Your task to perform on an android device: Clear all items from cart on costco. Search for "razer blade" on costco, select the first entry, add it to the cart, then select checkout. Image 0: 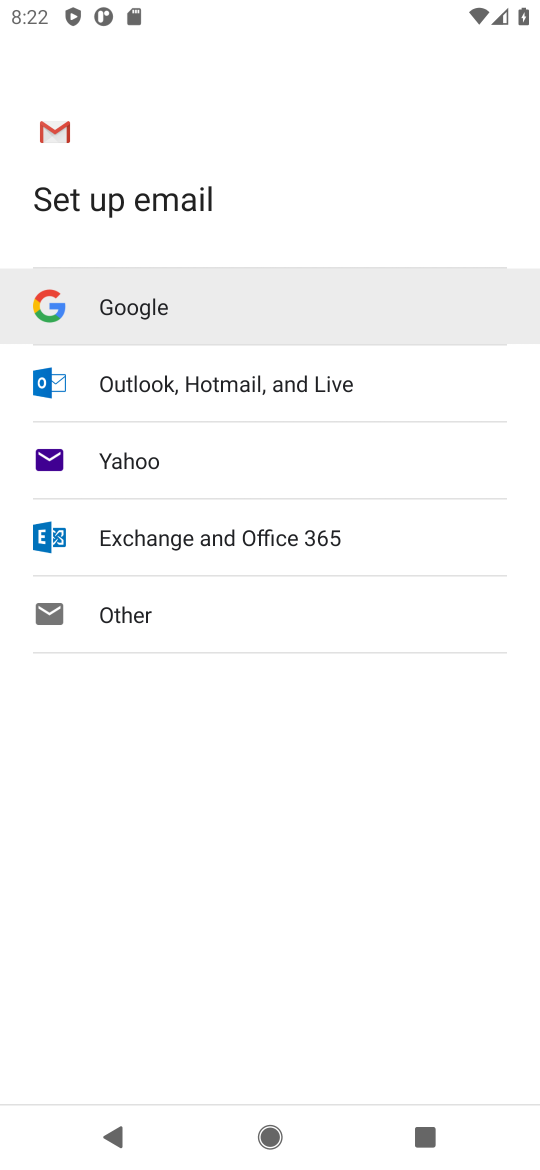
Step 0: press home button
Your task to perform on an android device: Clear all items from cart on costco. Search for "razer blade" on costco, select the first entry, add it to the cart, then select checkout. Image 1: 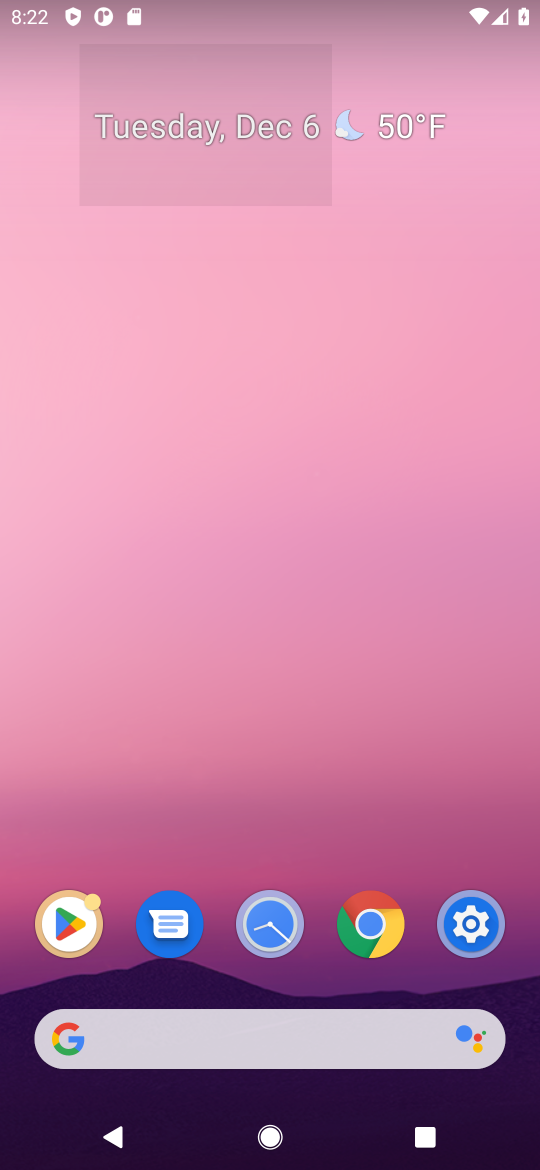
Step 1: click (275, 1027)
Your task to perform on an android device: Clear all items from cart on costco. Search for "razer blade" on costco, select the first entry, add it to the cart, then select checkout. Image 2: 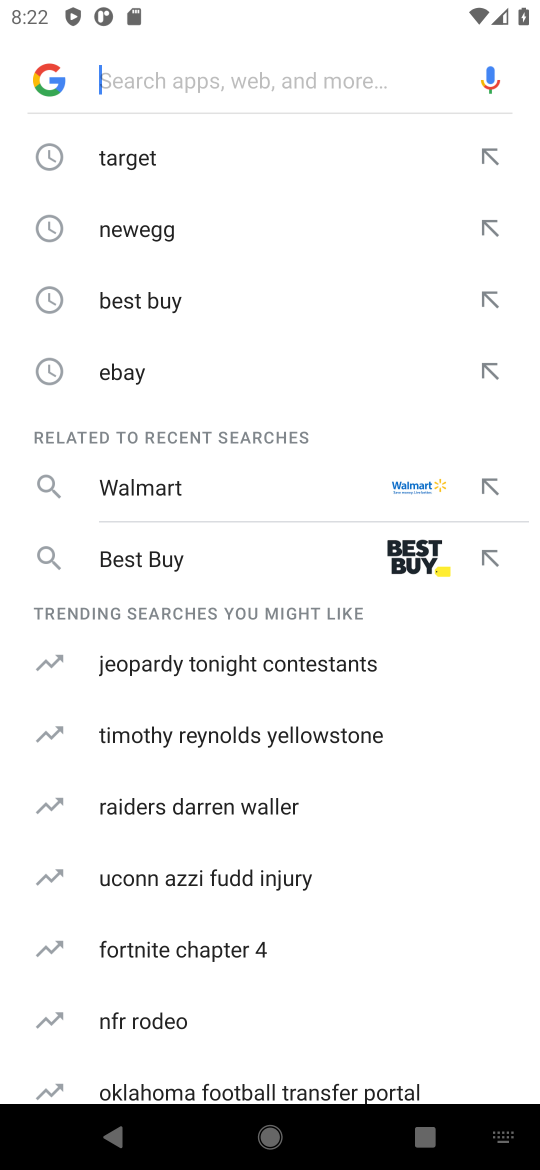
Step 2: type "costco"
Your task to perform on an android device: Clear all items from cart on costco. Search for "razer blade" on costco, select the first entry, add it to the cart, then select checkout. Image 3: 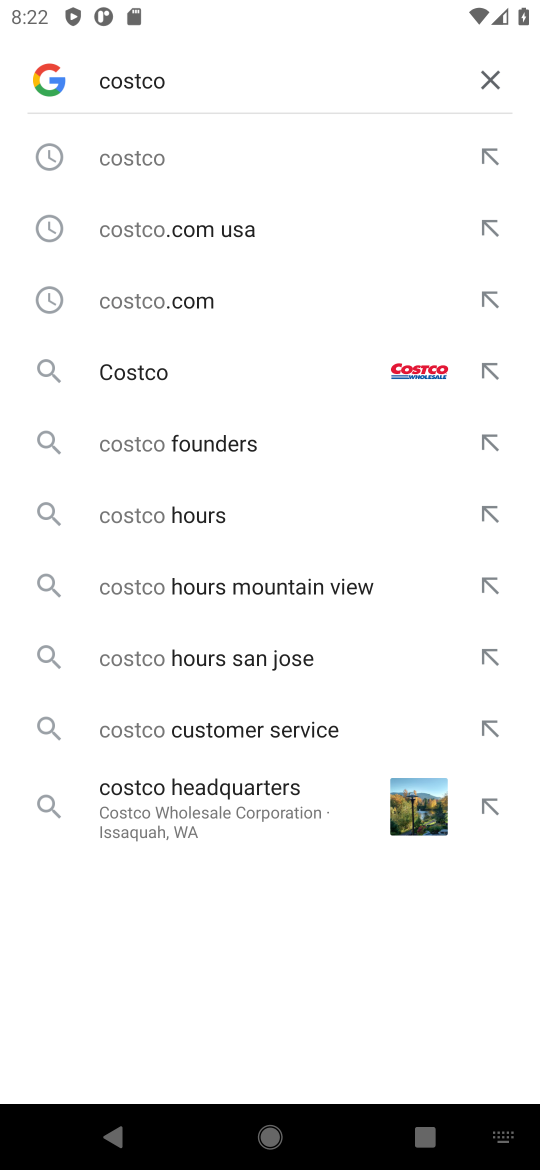
Step 3: click (269, 370)
Your task to perform on an android device: Clear all items from cart on costco. Search for "razer blade" on costco, select the first entry, add it to the cart, then select checkout. Image 4: 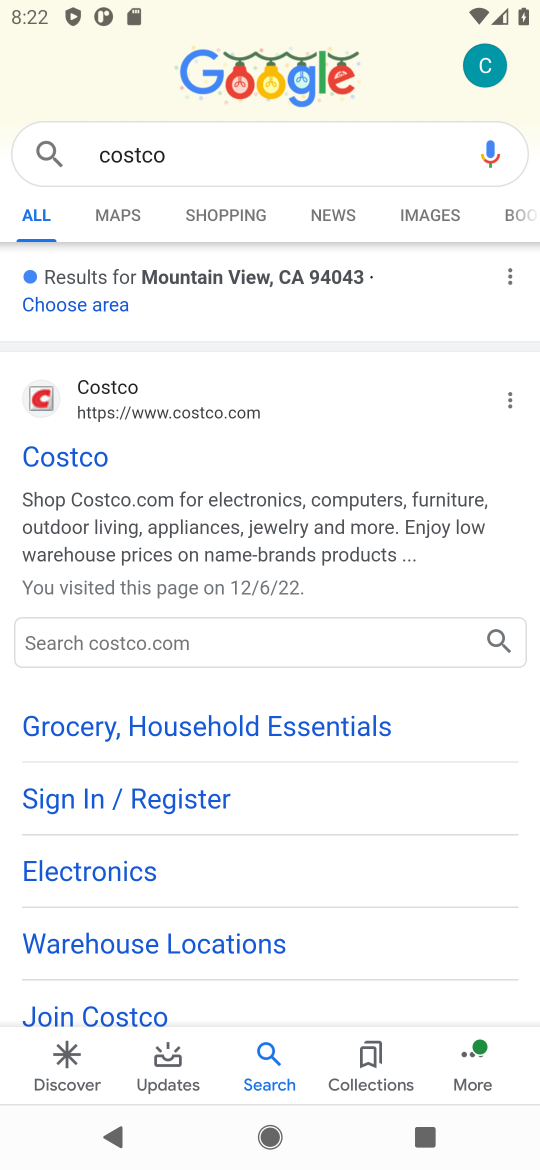
Step 4: click (72, 459)
Your task to perform on an android device: Clear all items from cart on costco. Search for "razer blade" on costco, select the first entry, add it to the cart, then select checkout. Image 5: 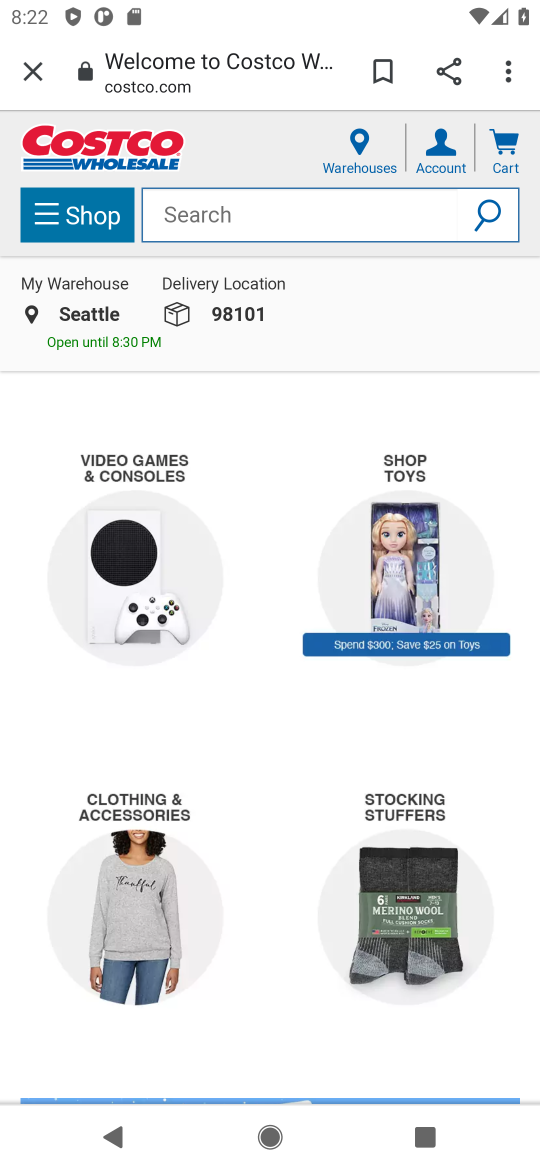
Step 5: click (288, 232)
Your task to perform on an android device: Clear all items from cart on costco. Search for "razer blade" on costco, select the first entry, add it to the cart, then select checkout. Image 6: 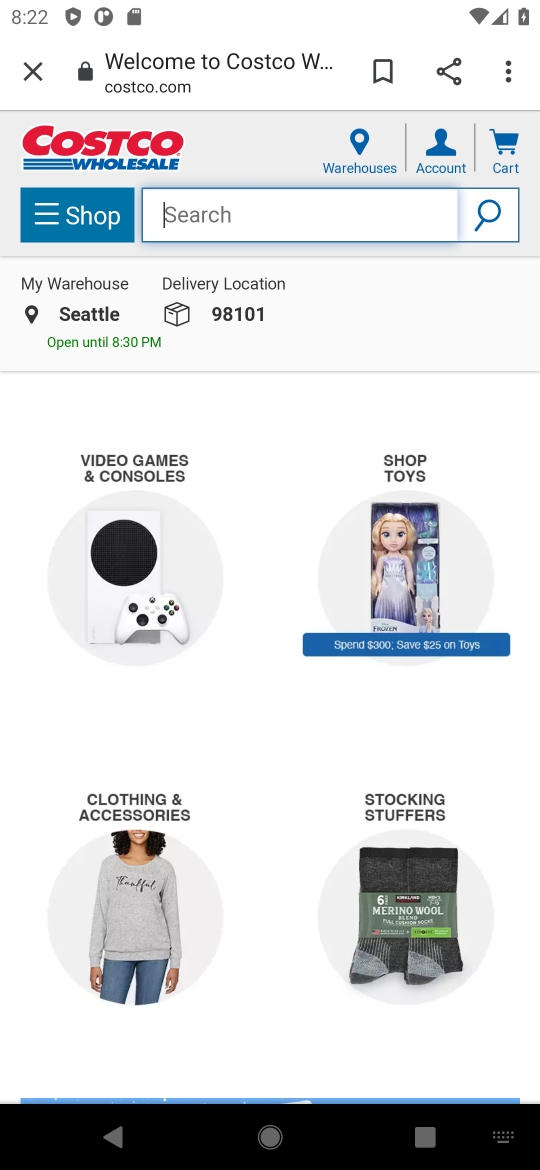
Step 6: type "razer blade"
Your task to perform on an android device: Clear all items from cart on costco. Search for "razer blade" on costco, select the first entry, add it to the cart, then select checkout. Image 7: 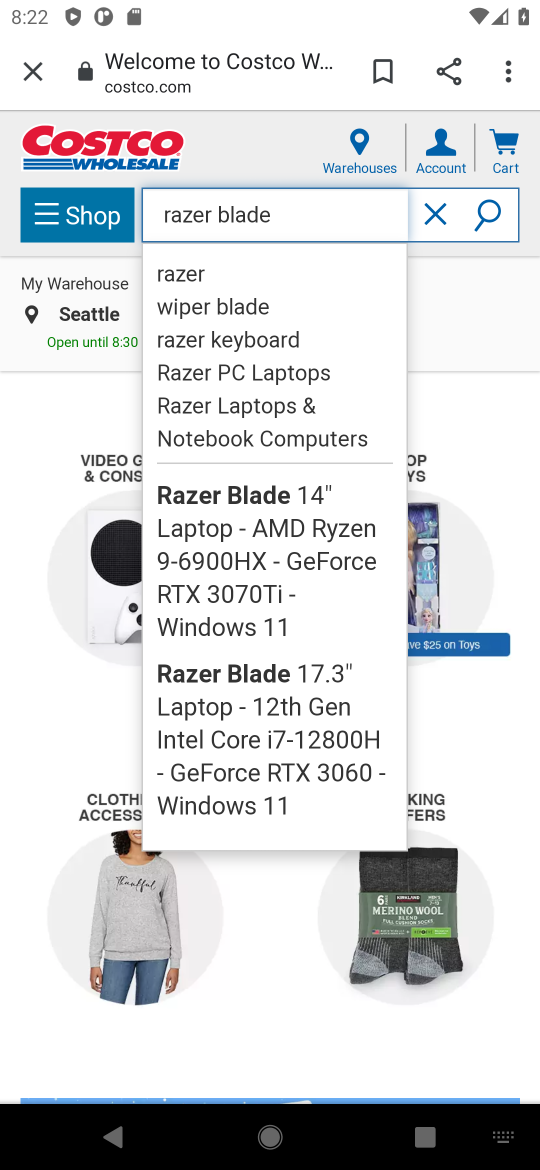
Step 7: click (478, 221)
Your task to perform on an android device: Clear all items from cart on costco. Search for "razer blade" on costco, select the first entry, add it to the cart, then select checkout. Image 8: 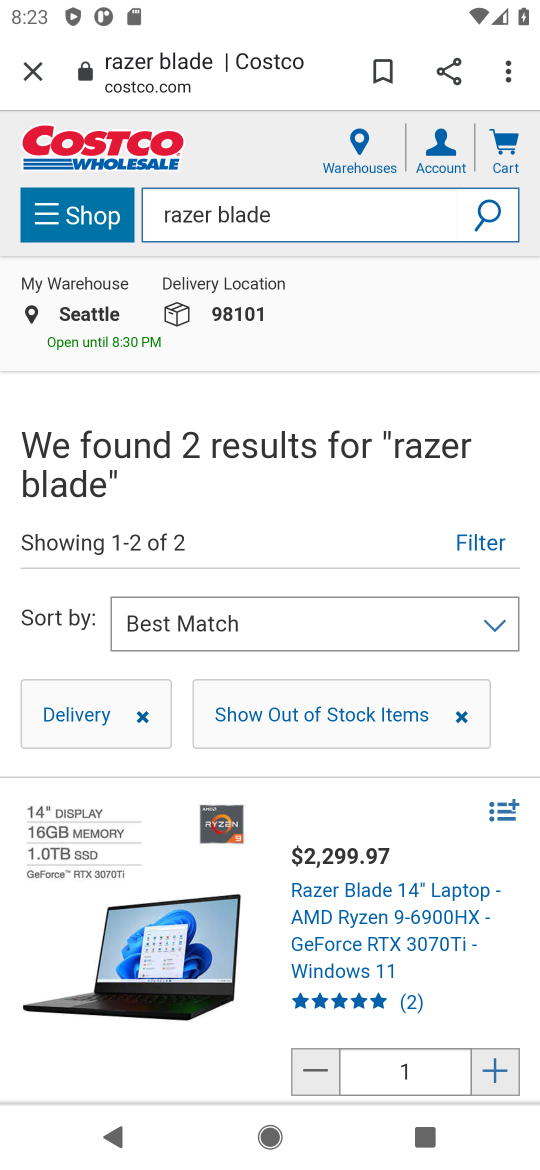
Step 8: click (303, 895)
Your task to perform on an android device: Clear all items from cart on costco. Search for "razer blade" on costco, select the first entry, add it to the cart, then select checkout. Image 9: 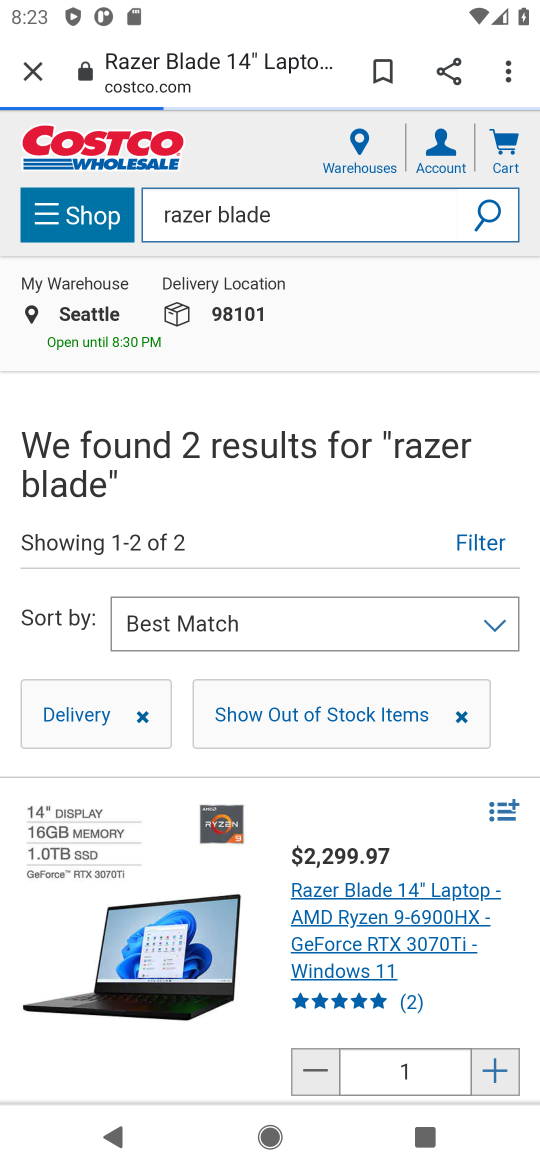
Step 9: task complete